Your task to perform on an android device: Show me the alarms in the clock app Image 0: 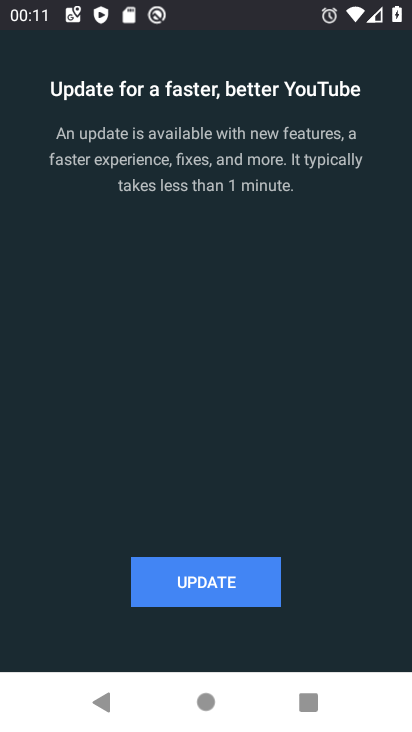
Step 0: press back button
Your task to perform on an android device: Show me the alarms in the clock app Image 1: 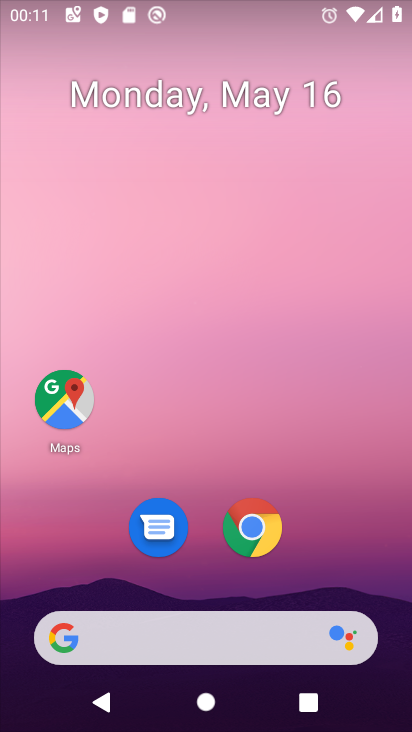
Step 1: drag from (355, 549) to (345, 143)
Your task to perform on an android device: Show me the alarms in the clock app Image 2: 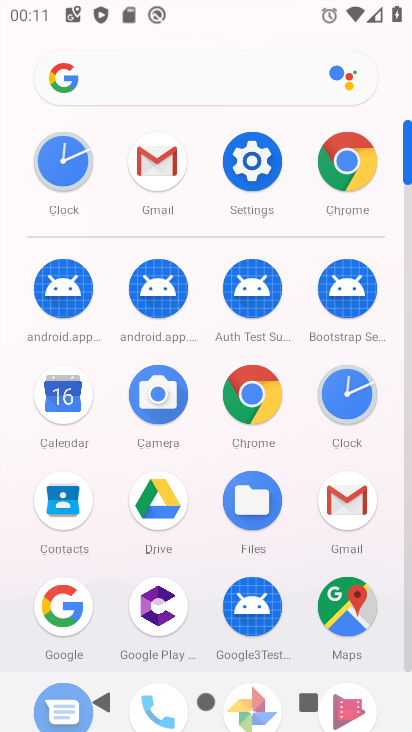
Step 2: click (353, 398)
Your task to perform on an android device: Show me the alarms in the clock app Image 3: 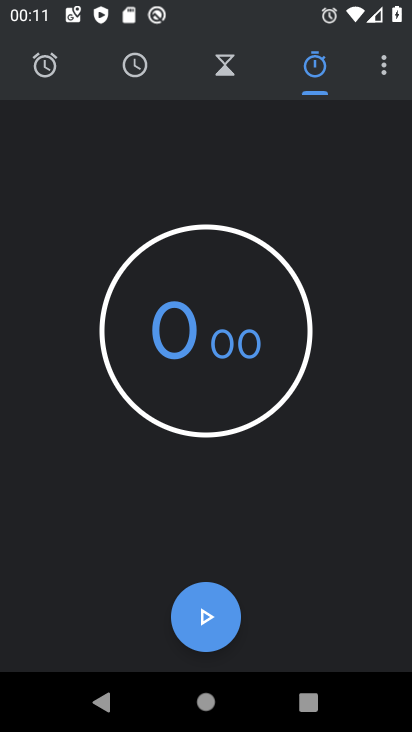
Step 3: press home button
Your task to perform on an android device: Show me the alarms in the clock app Image 4: 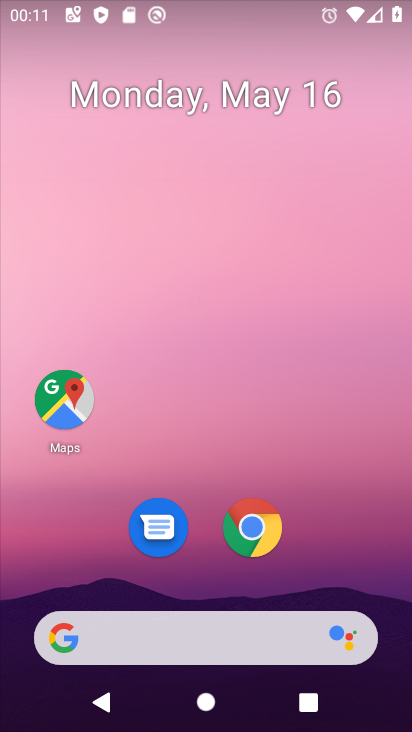
Step 4: drag from (311, 553) to (322, 274)
Your task to perform on an android device: Show me the alarms in the clock app Image 5: 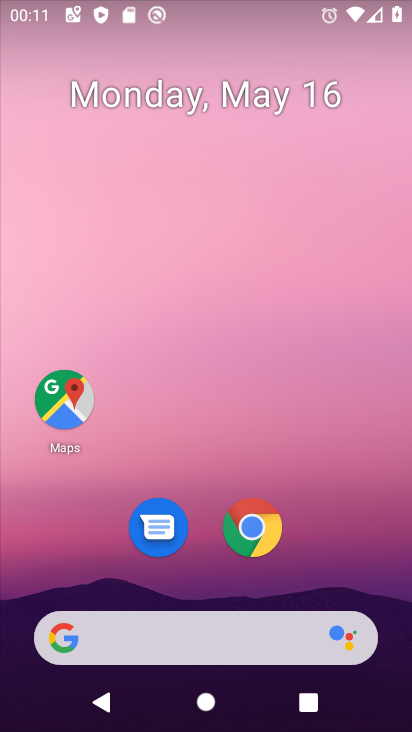
Step 5: drag from (326, 566) to (363, 163)
Your task to perform on an android device: Show me the alarms in the clock app Image 6: 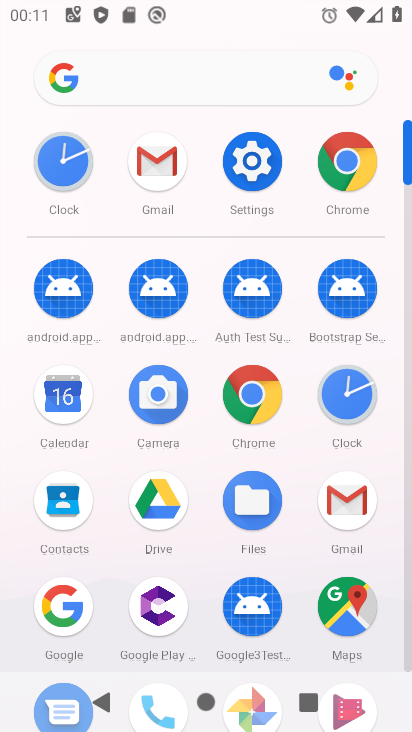
Step 6: click (354, 415)
Your task to perform on an android device: Show me the alarms in the clock app Image 7: 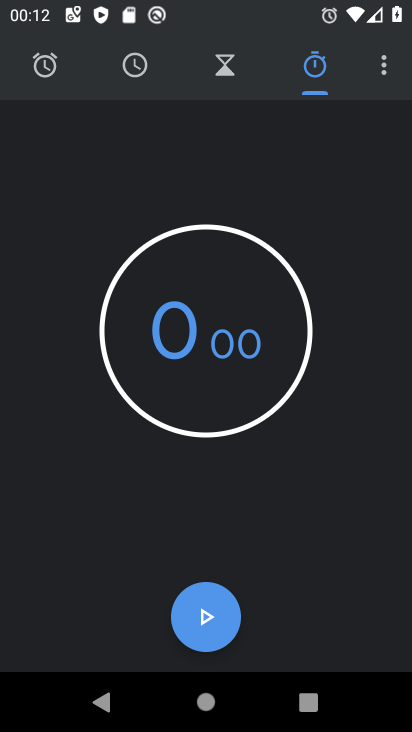
Step 7: click (34, 63)
Your task to perform on an android device: Show me the alarms in the clock app Image 8: 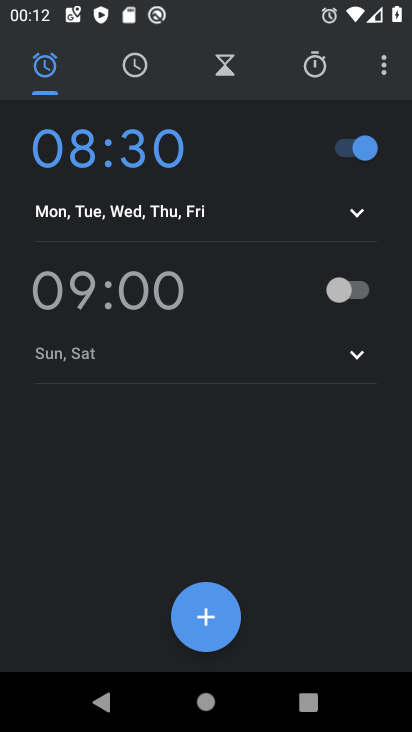
Step 8: task complete